Your task to perform on an android device: change alarm snooze length Image 0: 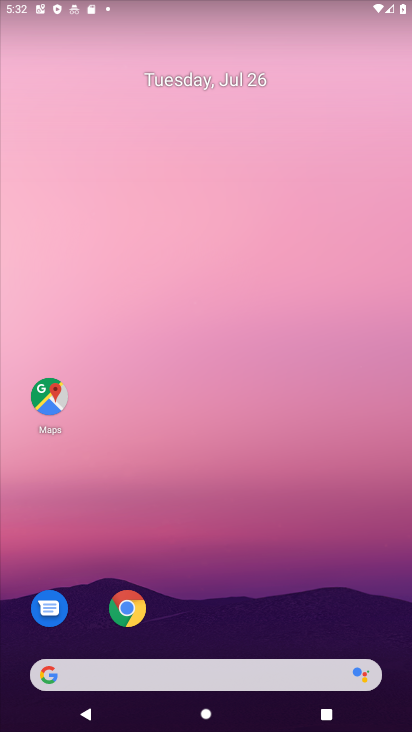
Step 0: press home button
Your task to perform on an android device: change alarm snooze length Image 1: 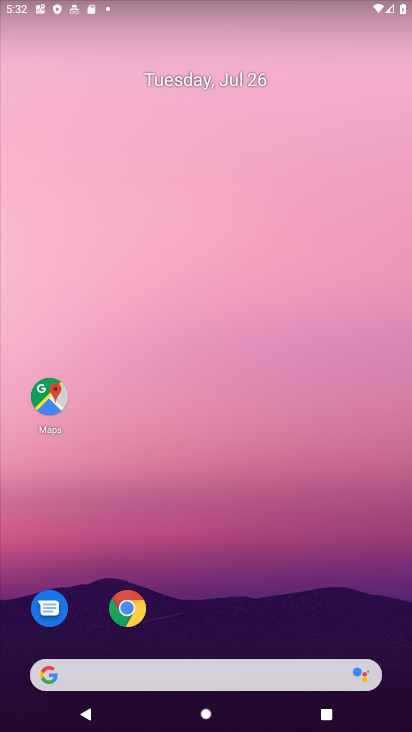
Step 1: drag from (242, 612) to (36, 84)
Your task to perform on an android device: change alarm snooze length Image 2: 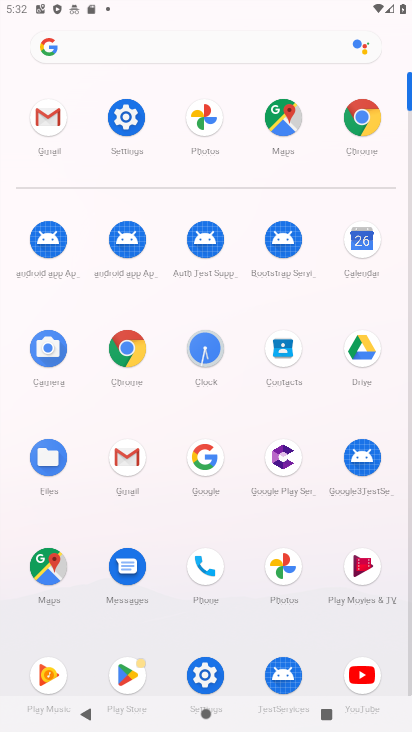
Step 2: click (217, 346)
Your task to perform on an android device: change alarm snooze length Image 3: 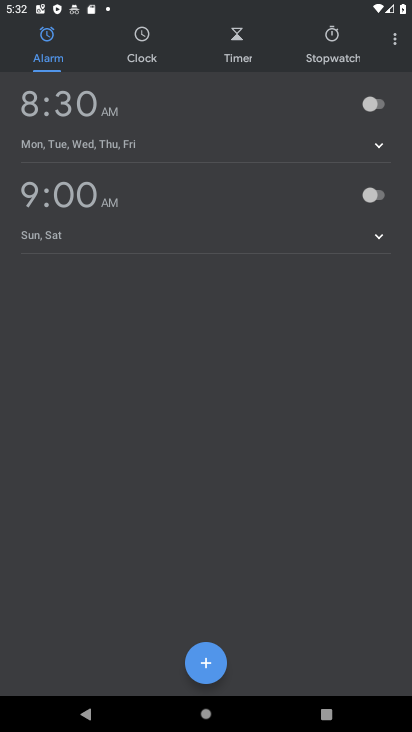
Step 3: click (403, 39)
Your task to perform on an android device: change alarm snooze length Image 4: 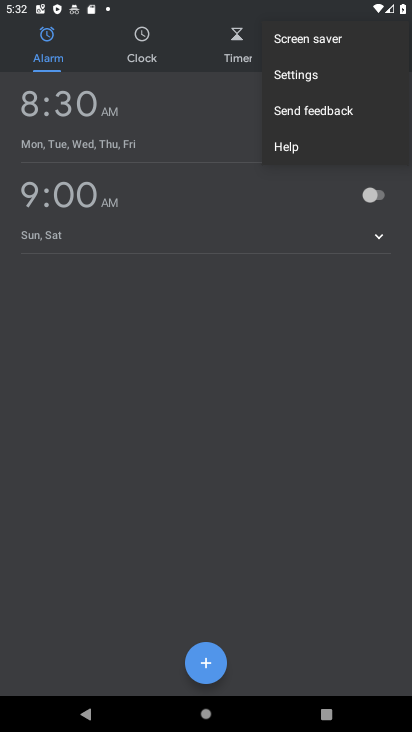
Step 4: click (302, 83)
Your task to perform on an android device: change alarm snooze length Image 5: 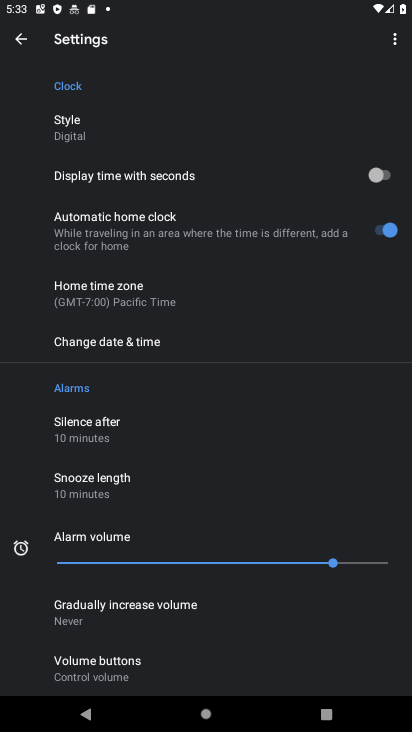
Step 5: click (92, 482)
Your task to perform on an android device: change alarm snooze length Image 6: 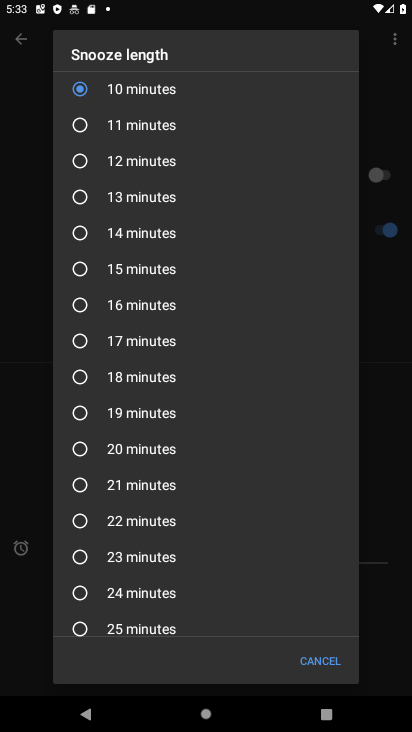
Step 6: click (76, 277)
Your task to perform on an android device: change alarm snooze length Image 7: 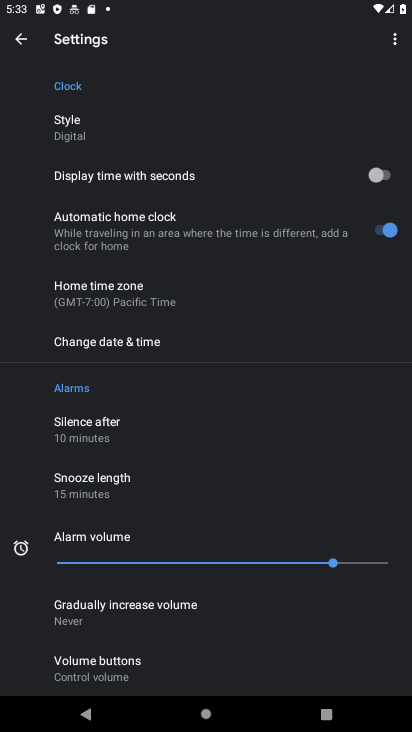
Step 7: task complete